Your task to perform on an android device: Open location settings Image 0: 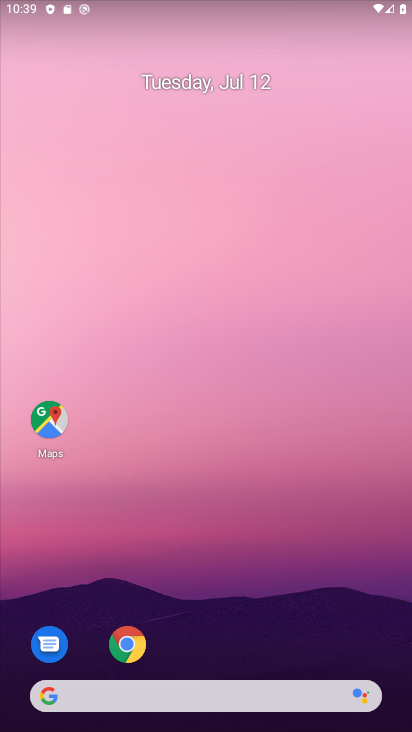
Step 0: drag from (173, 694) to (162, 135)
Your task to perform on an android device: Open location settings Image 1: 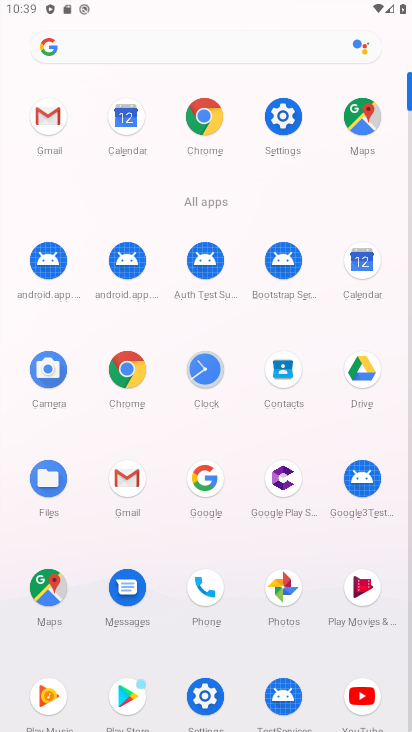
Step 1: click (280, 109)
Your task to perform on an android device: Open location settings Image 2: 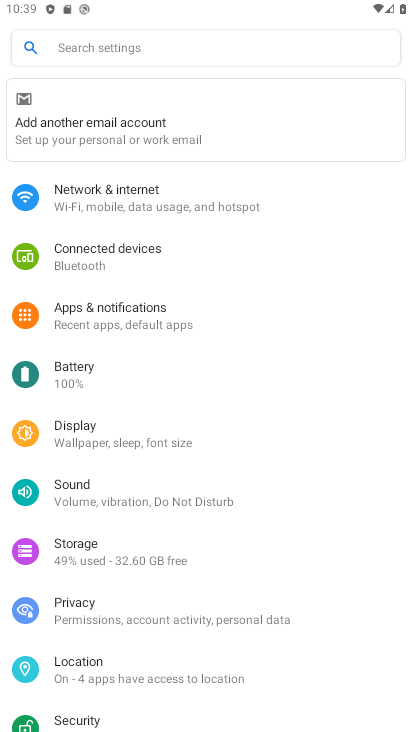
Step 2: click (82, 666)
Your task to perform on an android device: Open location settings Image 3: 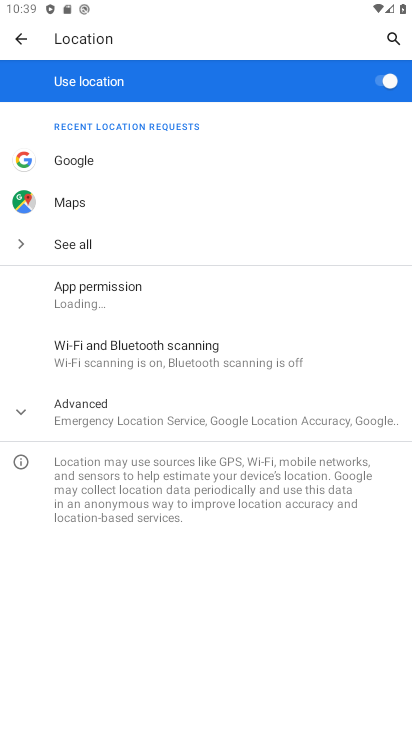
Step 3: click (186, 414)
Your task to perform on an android device: Open location settings Image 4: 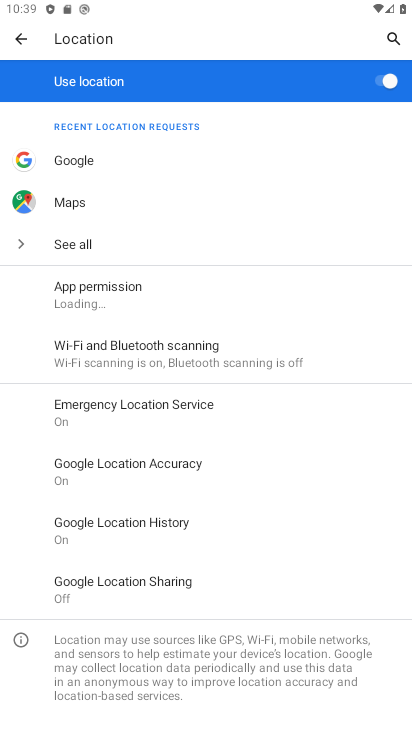
Step 4: task complete